Your task to perform on an android device: open app "Move to iOS" Image 0: 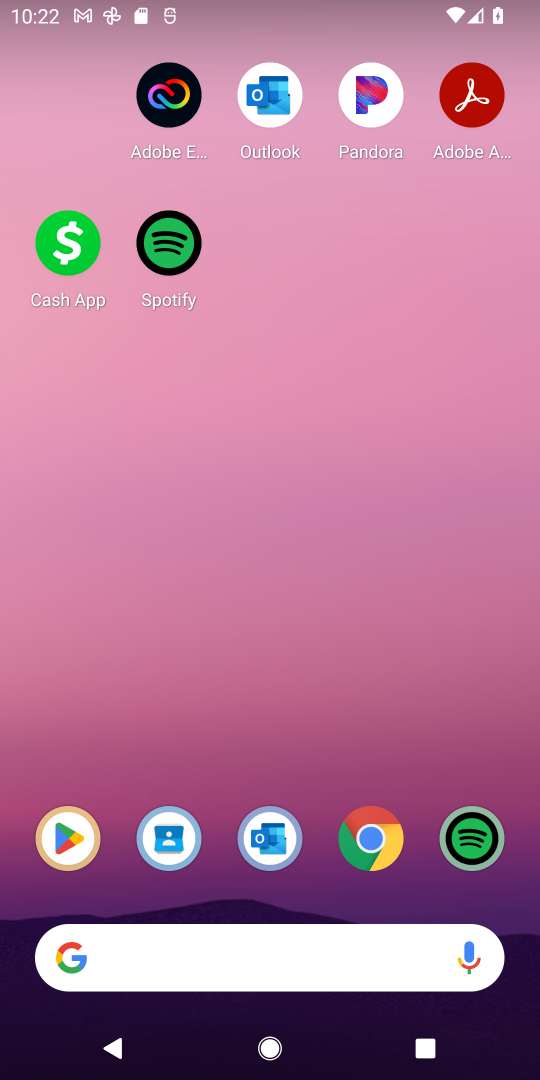
Step 0: click (72, 822)
Your task to perform on an android device: open app "Move to iOS" Image 1: 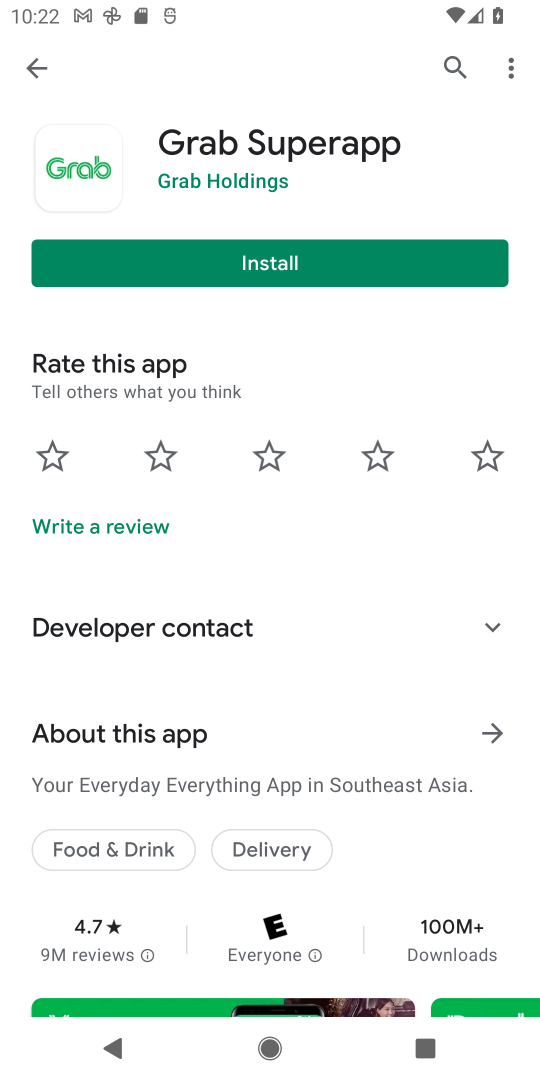
Step 1: click (27, 71)
Your task to perform on an android device: open app "Move to iOS" Image 2: 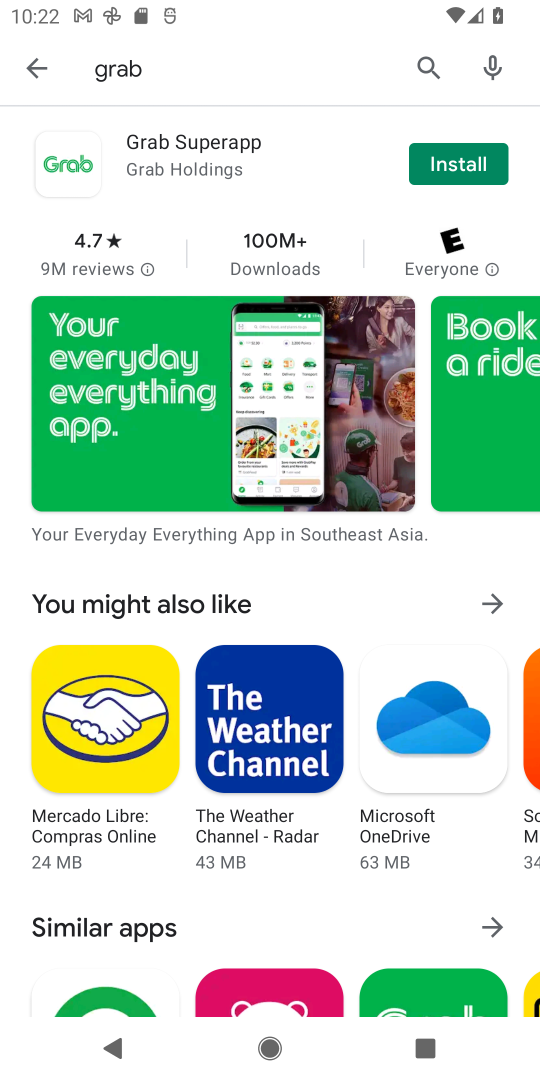
Step 2: click (179, 72)
Your task to perform on an android device: open app "Move to iOS" Image 3: 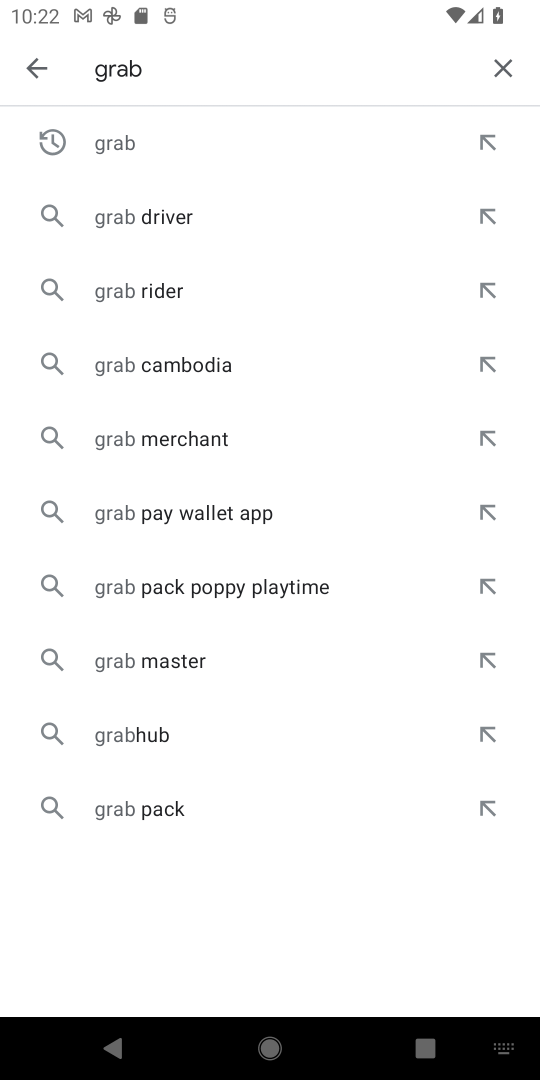
Step 3: click (507, 67)
Your task to perform on an android device: open app "Move to iOS" Image 4: 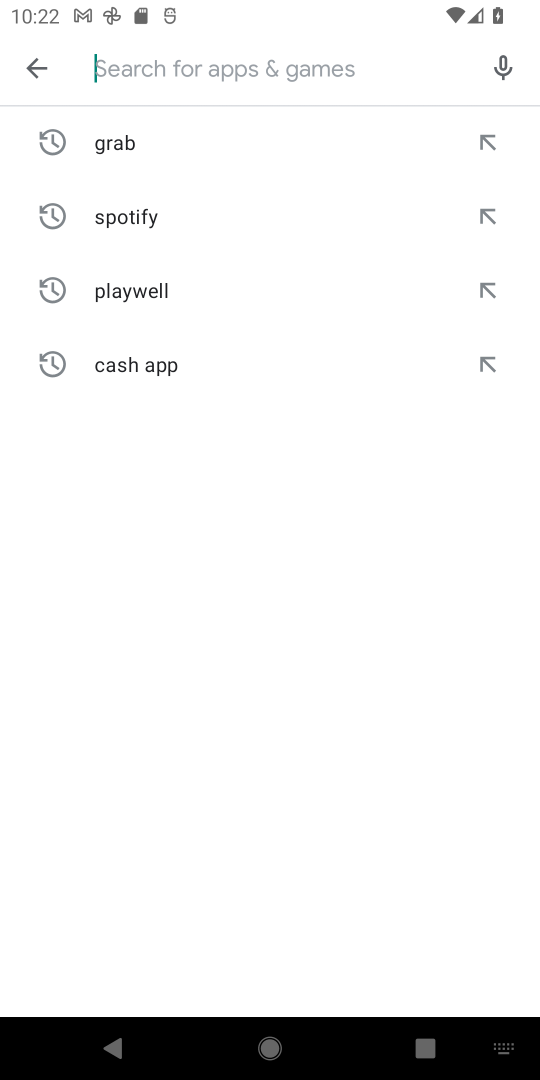
Step 4: type "Move to ios"
Your task to perform on an android device: open app "Move to iOS" Image 5: 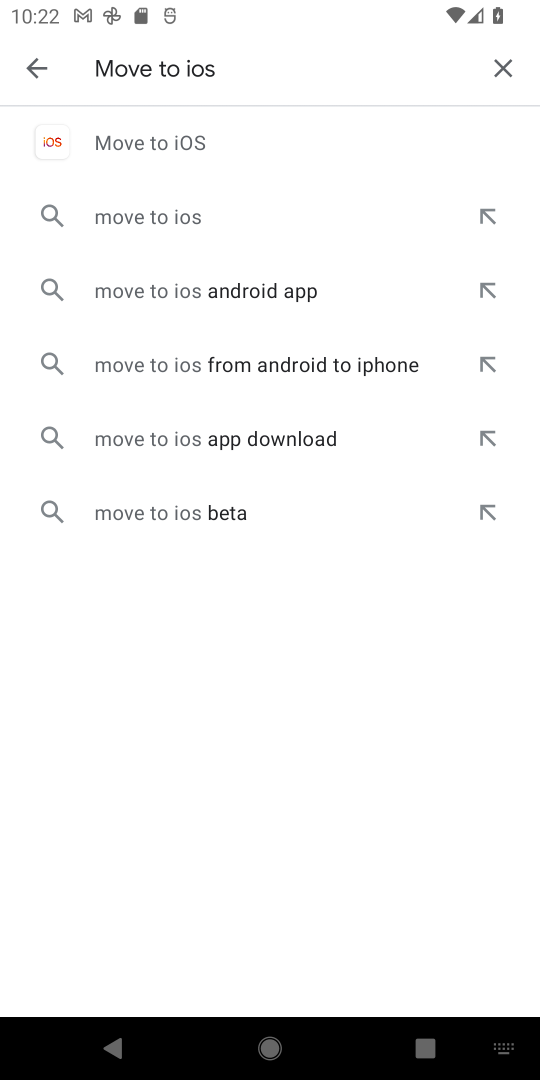
Step 5: click (148, 134)
Your task to perform on an android device: open app "Move to iOS" Image 6: 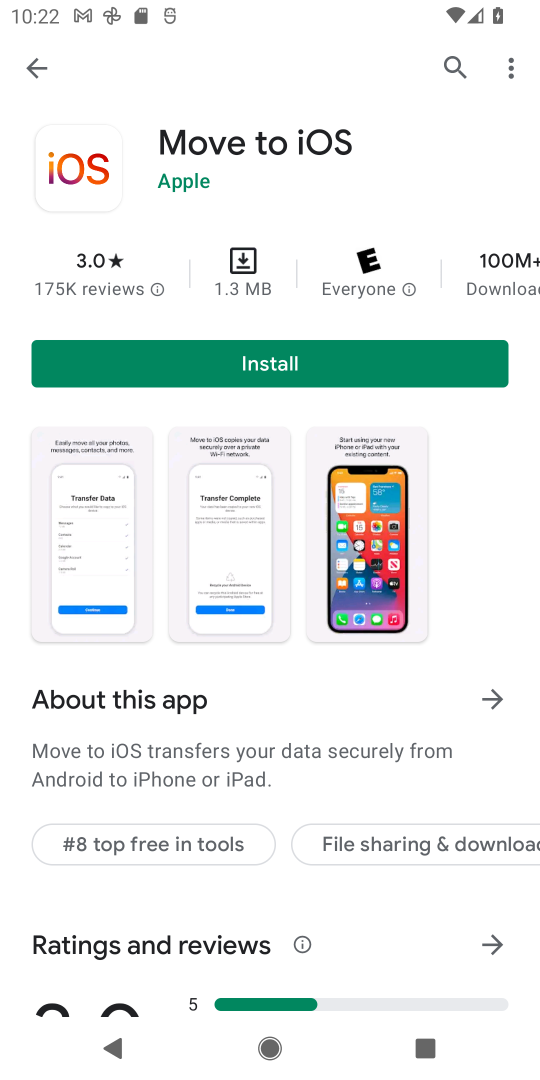
Step 6: task complete